Your task to perform on an android device: Open CNN.com Image 0: 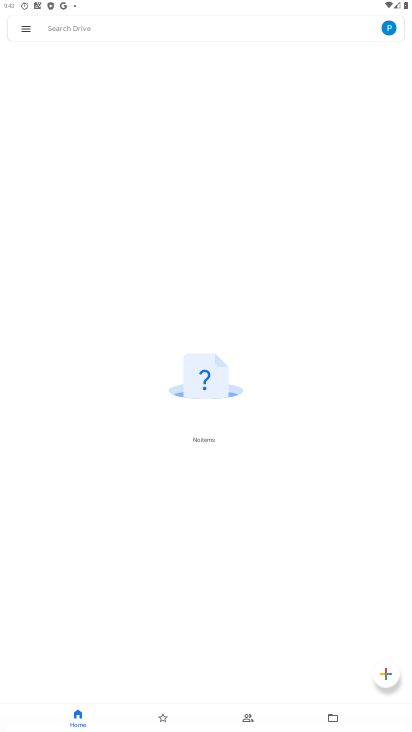
Step 0: press home button
Your task to perform on an android device: Open CNN.com Image 1: 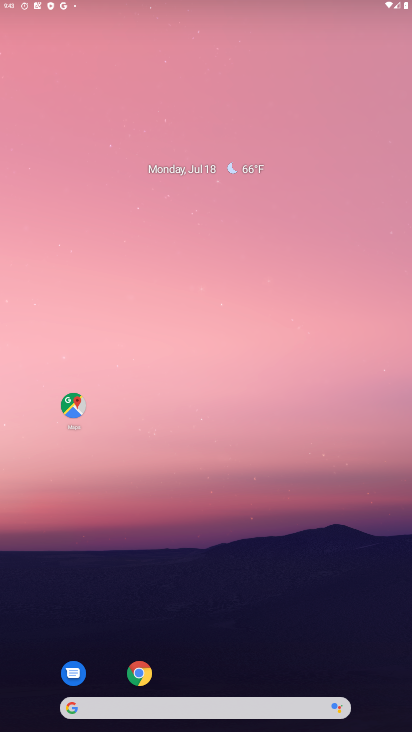
Step 1: drag from (222, 685) to (227, 131)
Your task to perform on an android device: Open CNN.com Image 2: 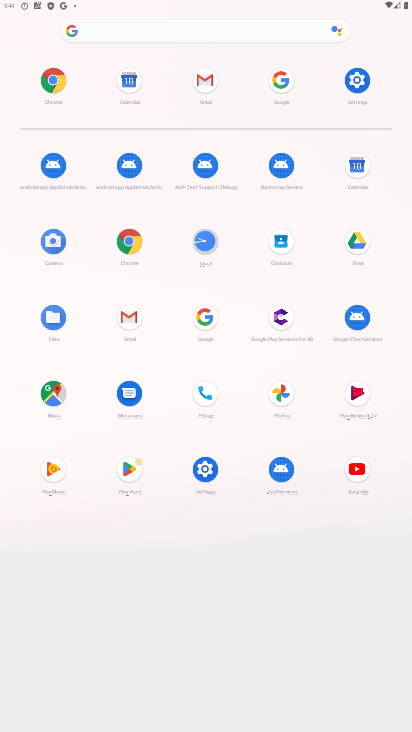
Step 2: click (201, 316)
Your task to perform on an android device: Open CNN.com Image 3: 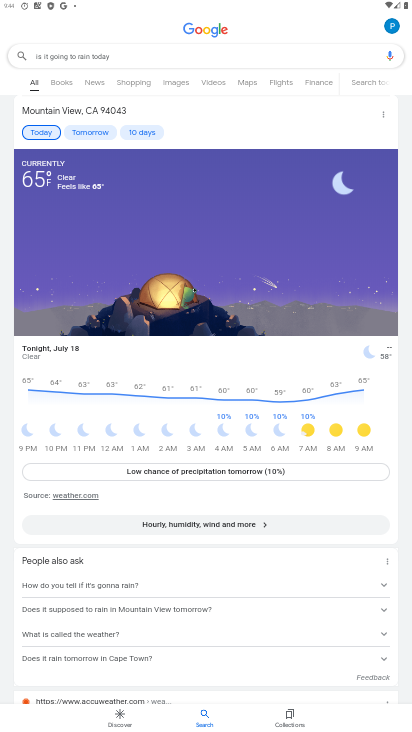
Step 3: click (174, 55)
Your task to perform on an android device: Open CNN.com Image 4: 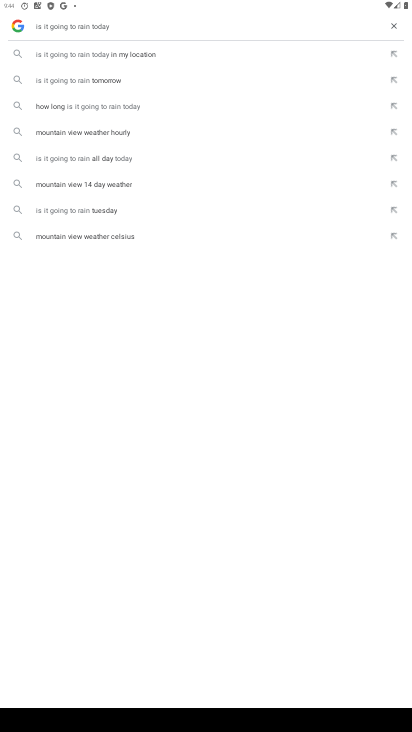
Step 4: click (392, 25)
Your task to perform on an android device: Open CNN.com Image 5: 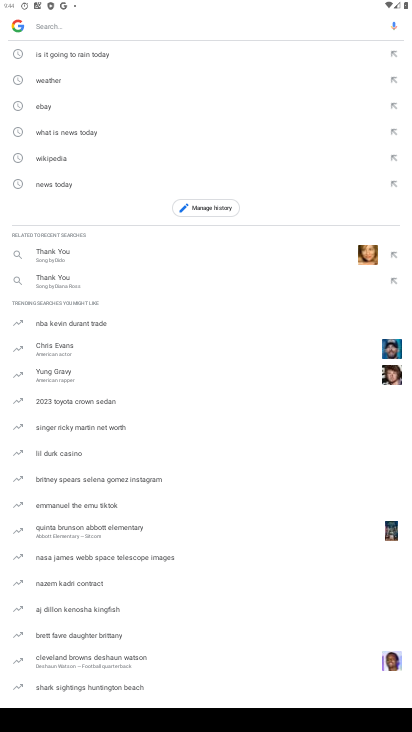
Step 5: type "cnn.com"
Your task to perform on an android device: Open CNN.com Image 6: 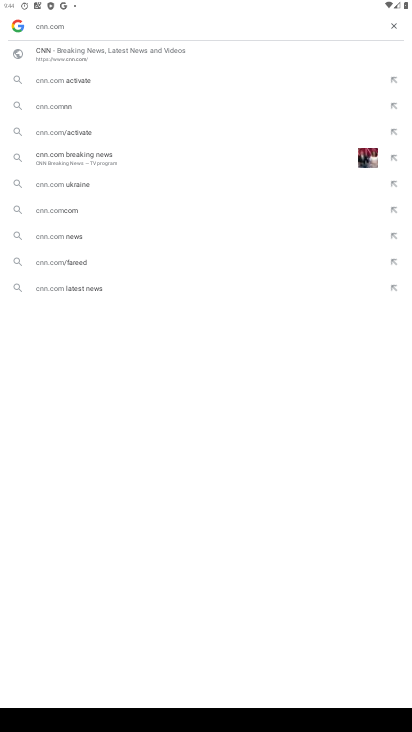
Step 6: click (119, 57)
Your task to perform on an android device: Open CNN.com Image 7: 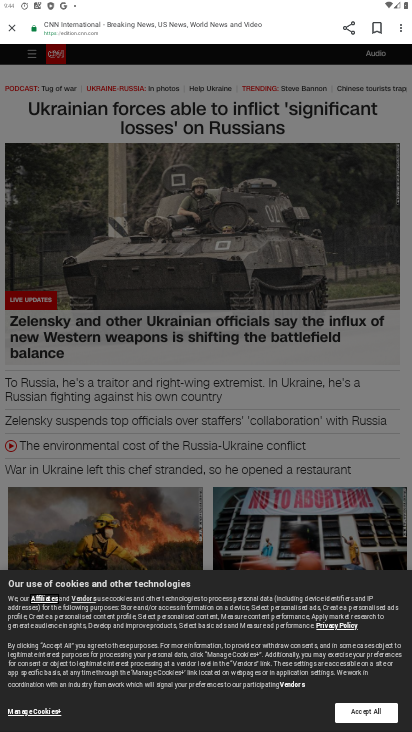
Step 7: task complete